Your task to perform on an android device: Go to privacy settings Image 0: 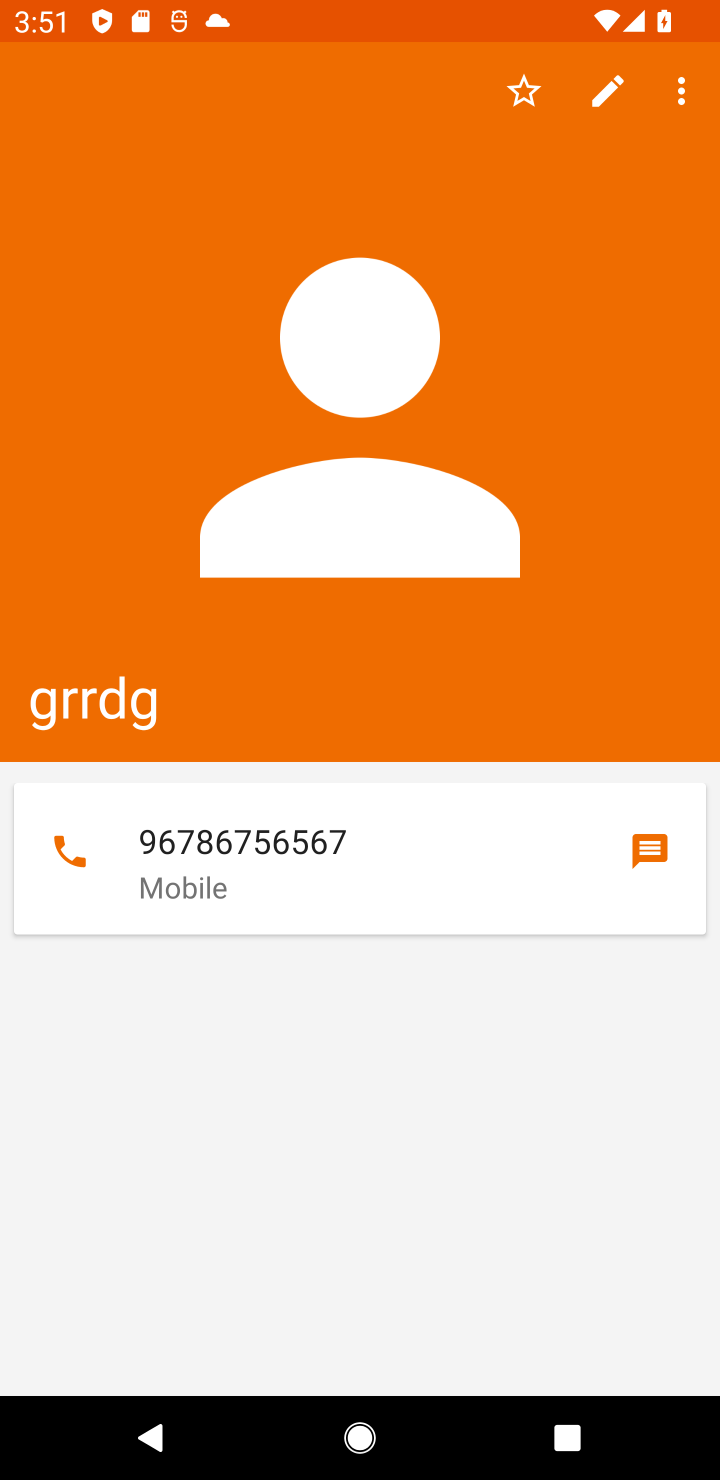
Step 0: press home button
Your task to perform on an android device: Go to privacy settings Image 1: 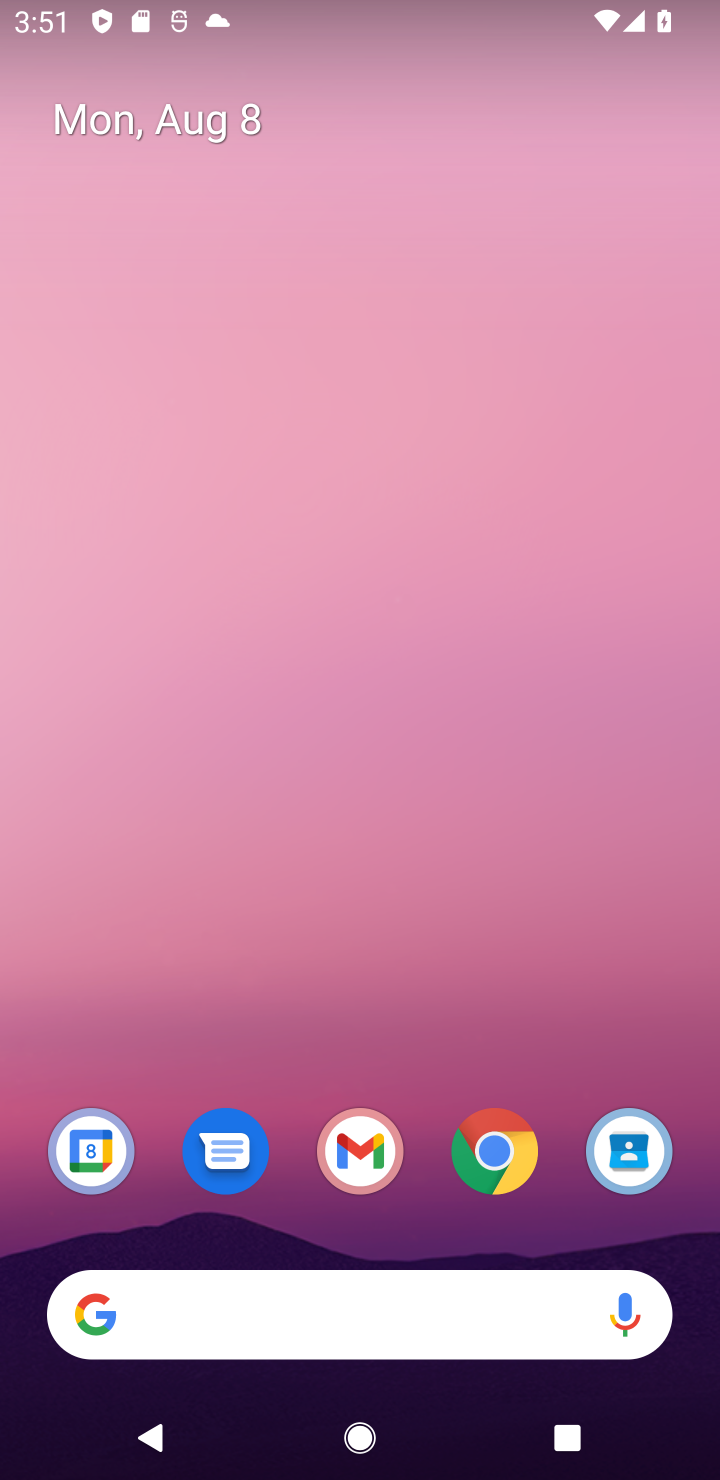
Step 1: drag from (337, 1056) to (361, 38)
Your task to perform on an android device: Go to privacy settings Image 2: 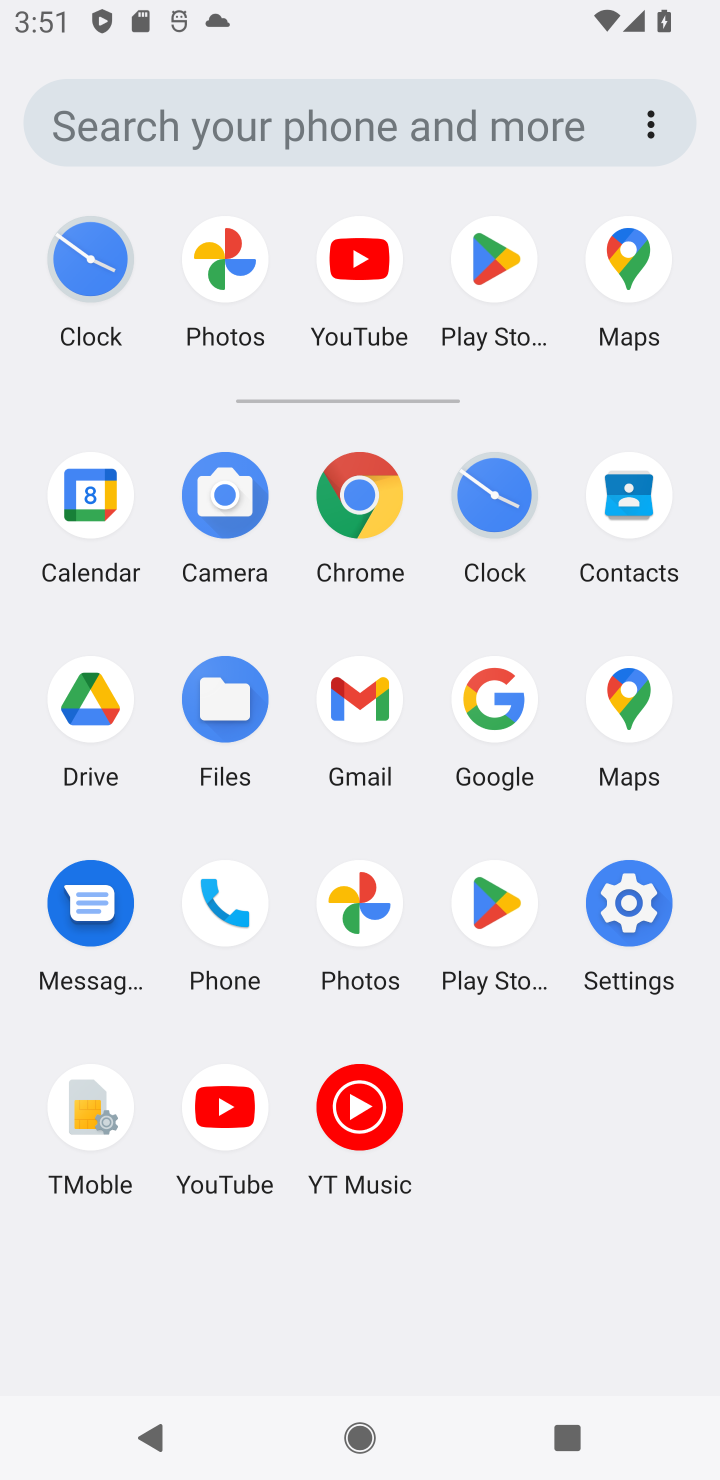
Step 2: click (630, 868)
Your task to perform on an android device: Go to privacy settings Image 3: 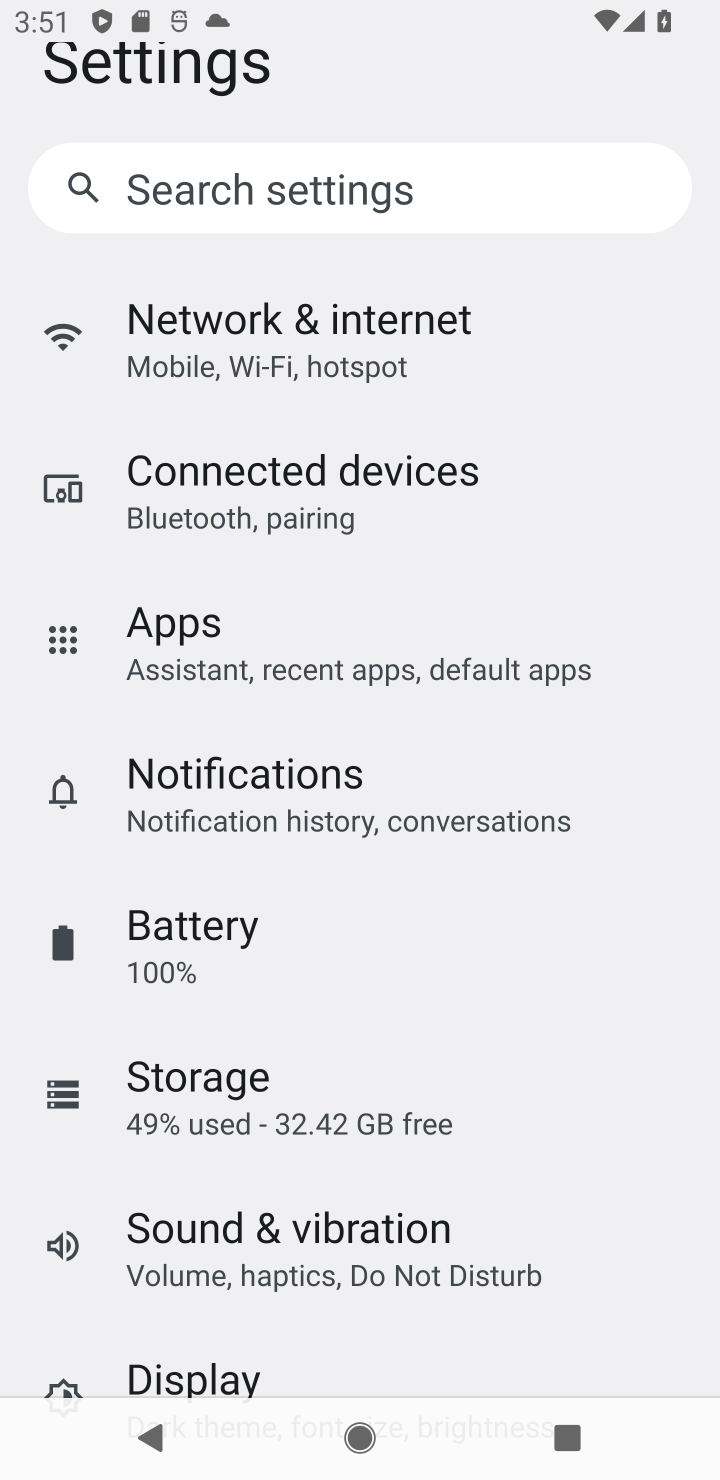
Step 3: drag from (314, 982) to (369, 488)
Your task to perform on an android device: Go to privacy settings Image 4: 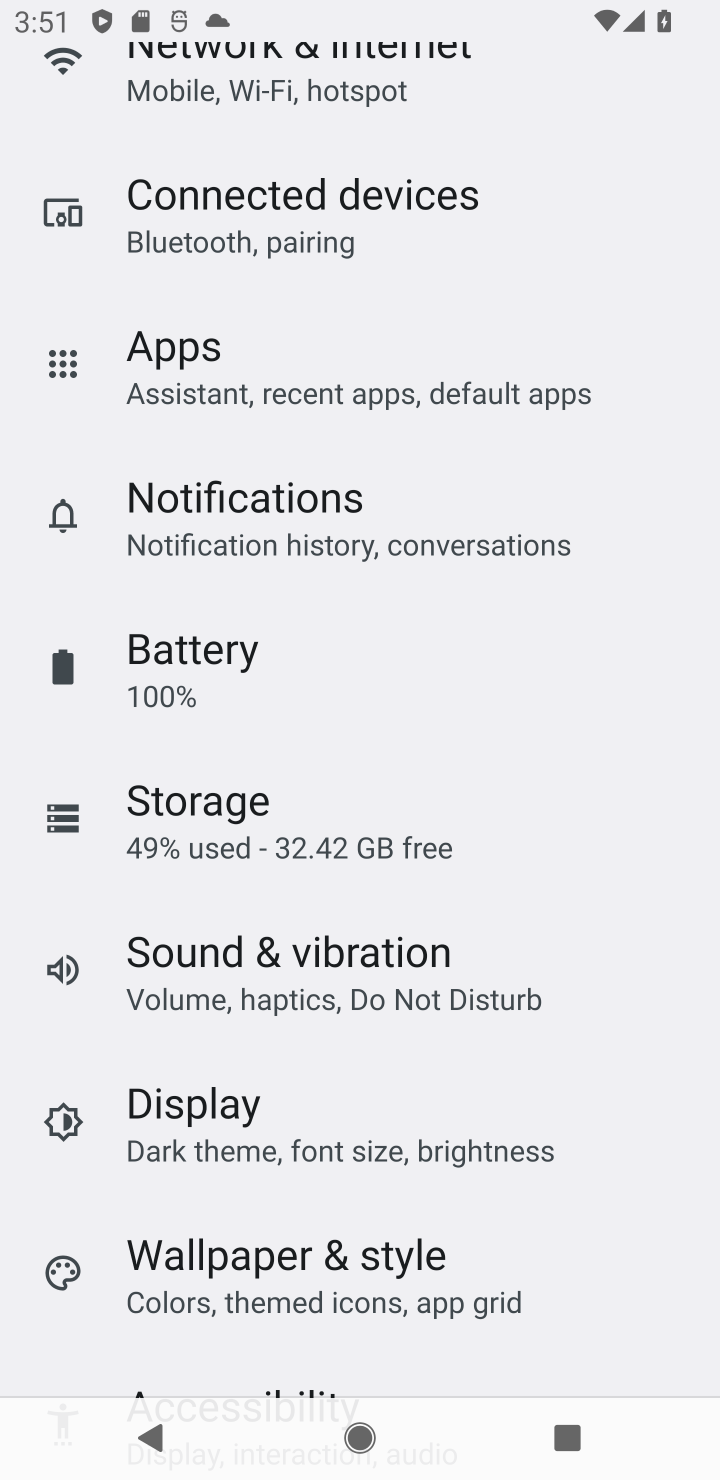
Step 4: drag from (382, 1103) to (447, 580)
Your task to perform on an android device: Go to privacy settings Image 5: 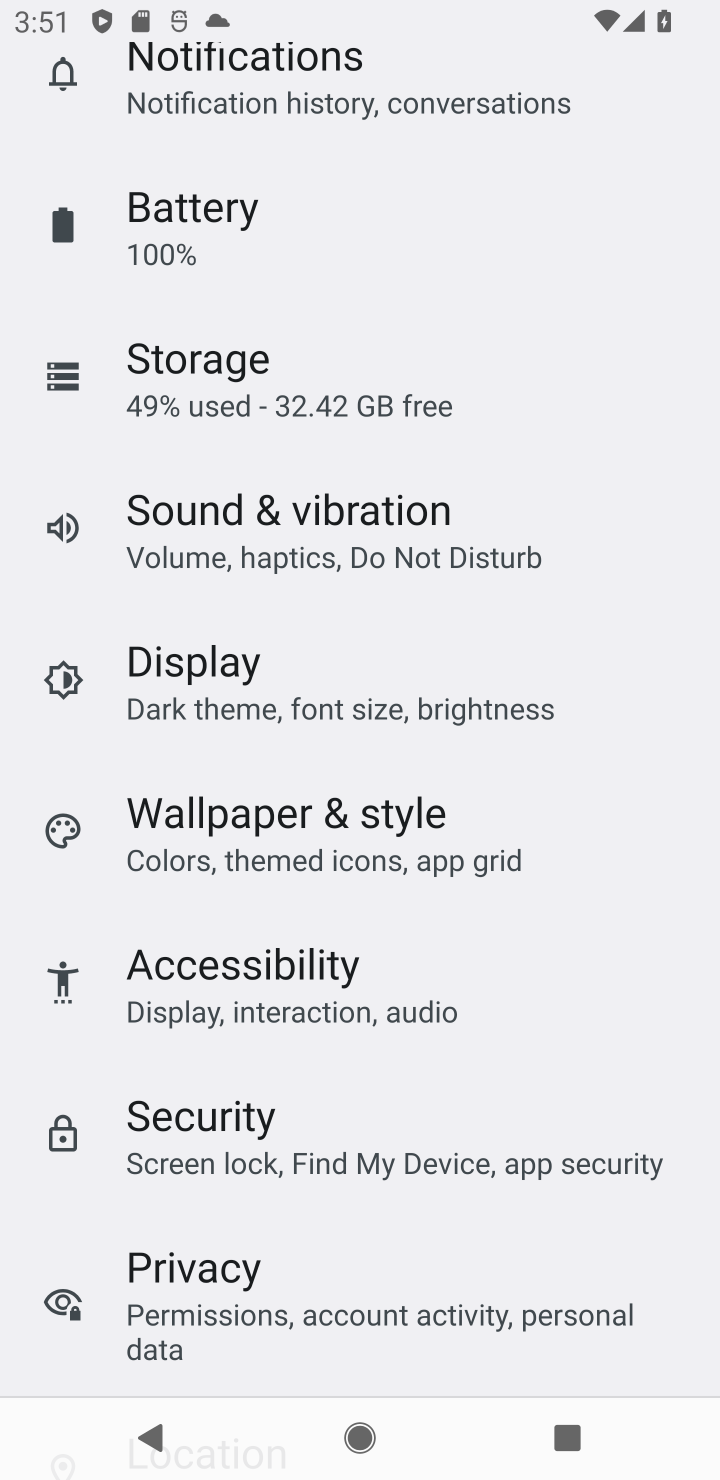
Step 5: click (315, 1264)
Your task to perform on an android device: Go to privacy settings Image 6: 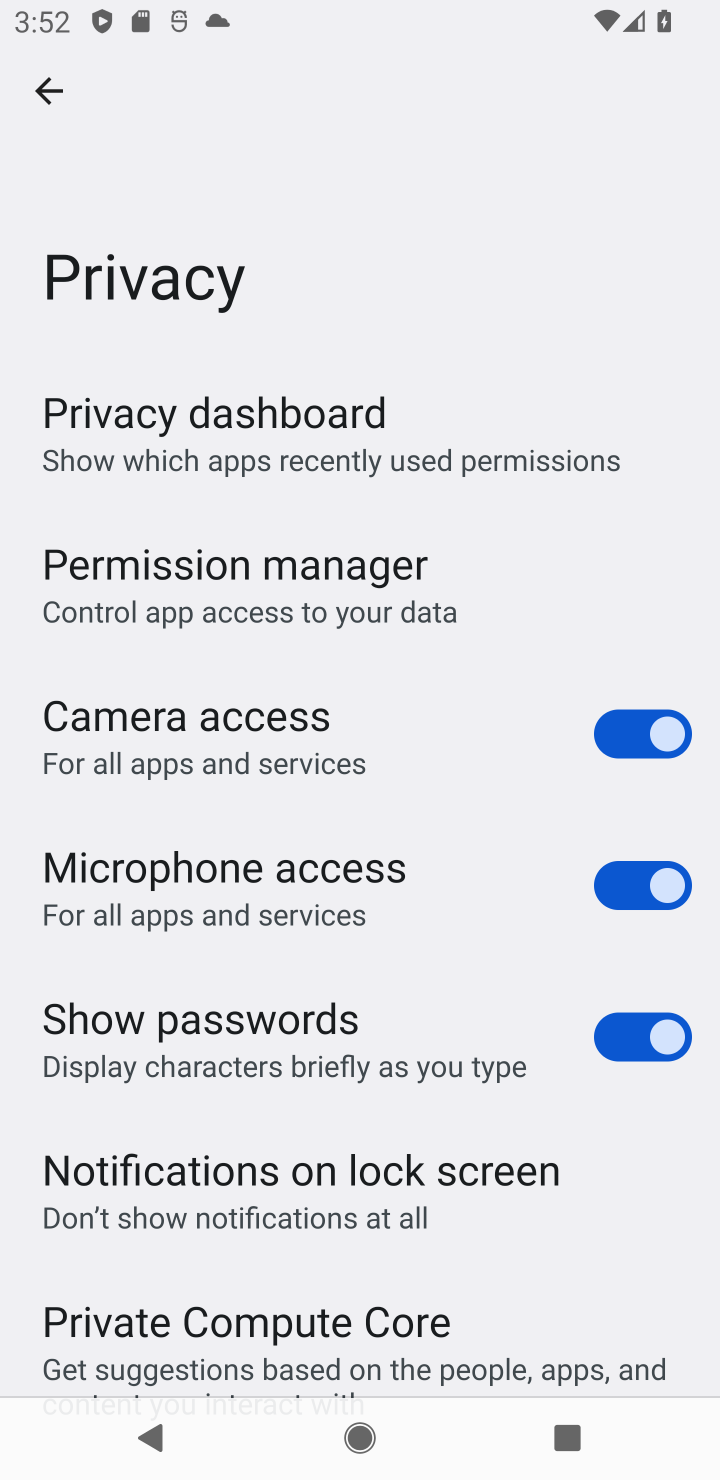
Step 6: task complete